Your task to perform on an android device: Add corsair k70 to the cart on ebay, then select checkout. Image 0: 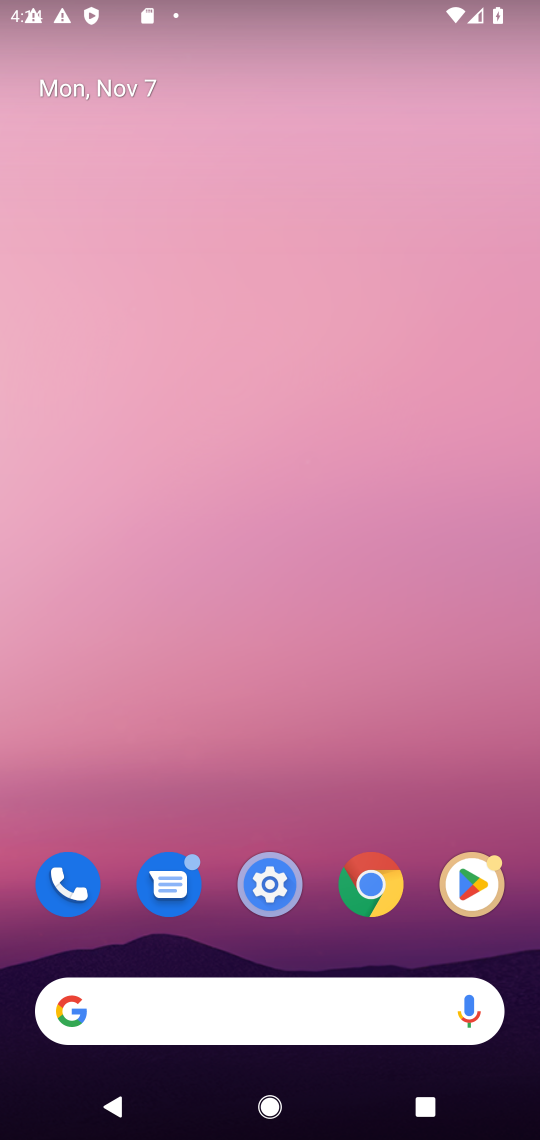
Step 0: drag from (325, 839) to (317, 142)
Your task to perform on an android device: Add corsair k70 to the cart on ebay, then select checkout. Image 1: 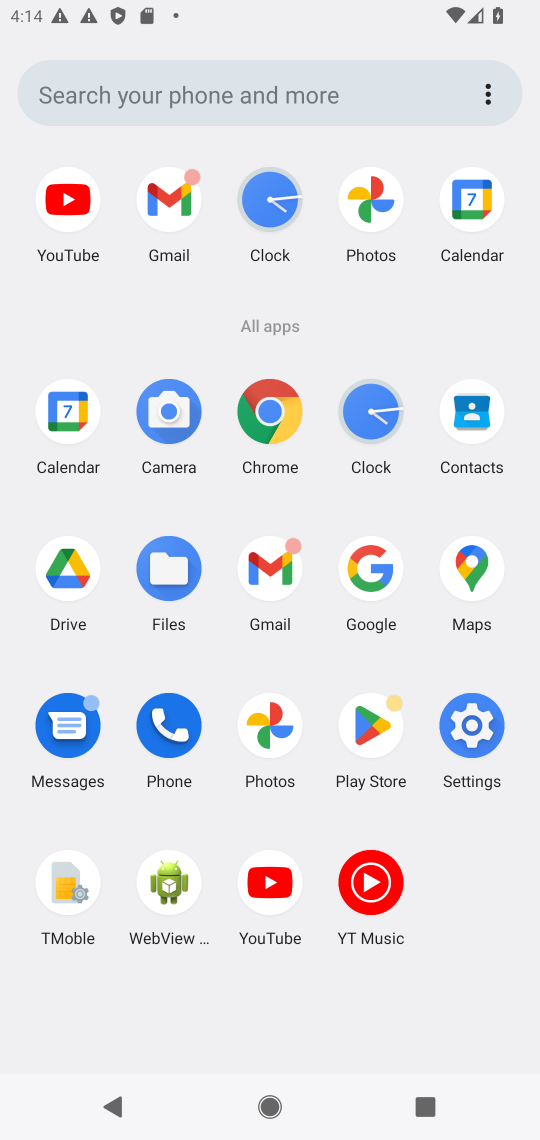
Step 1: click (275, 416)
Your task to perform on an android device: Add corsair k70 to the cart on ebay, then select checkout. Image 2: 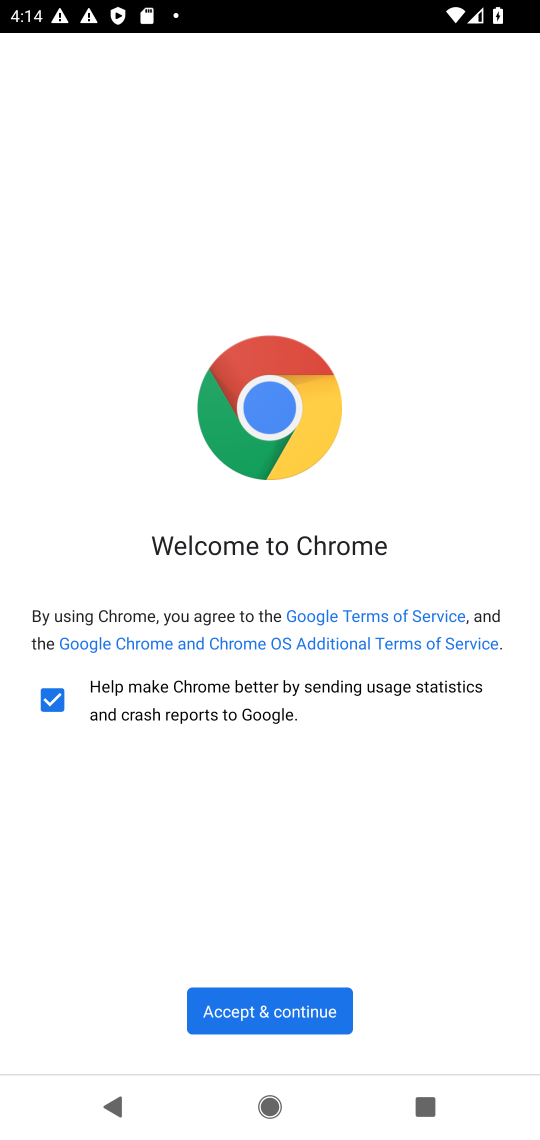
Step 2: click (310, 1009)
Your task to perform on an android device: Add corsair k70 to the cart on ebay, then select checkout. Image 3: 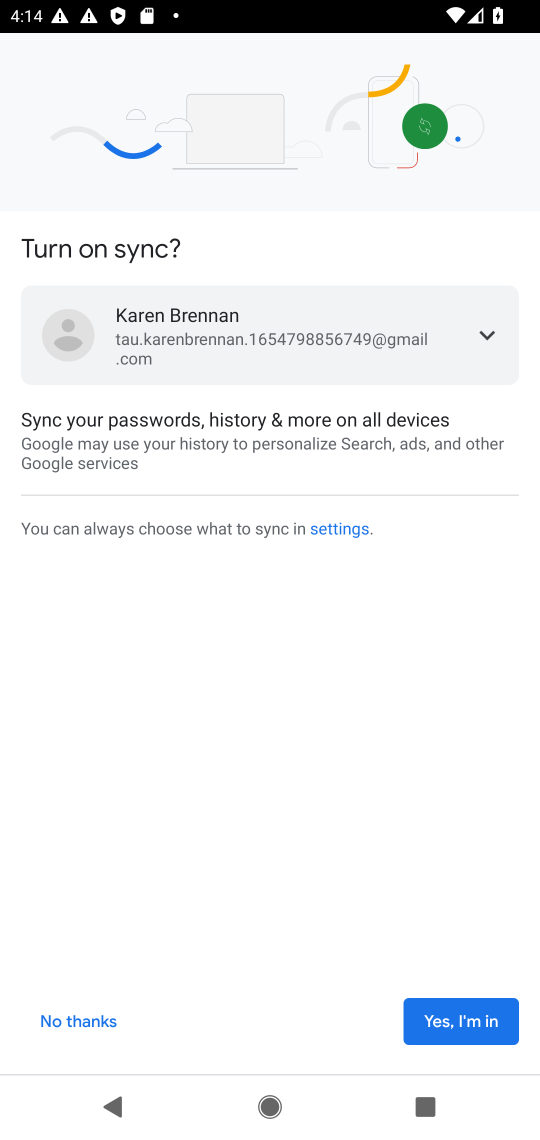
Step 3: click (475, 1027)
Your task to perform on an android device: Add corsair k70 to the cart on ebay, then select checkout. Image 4: 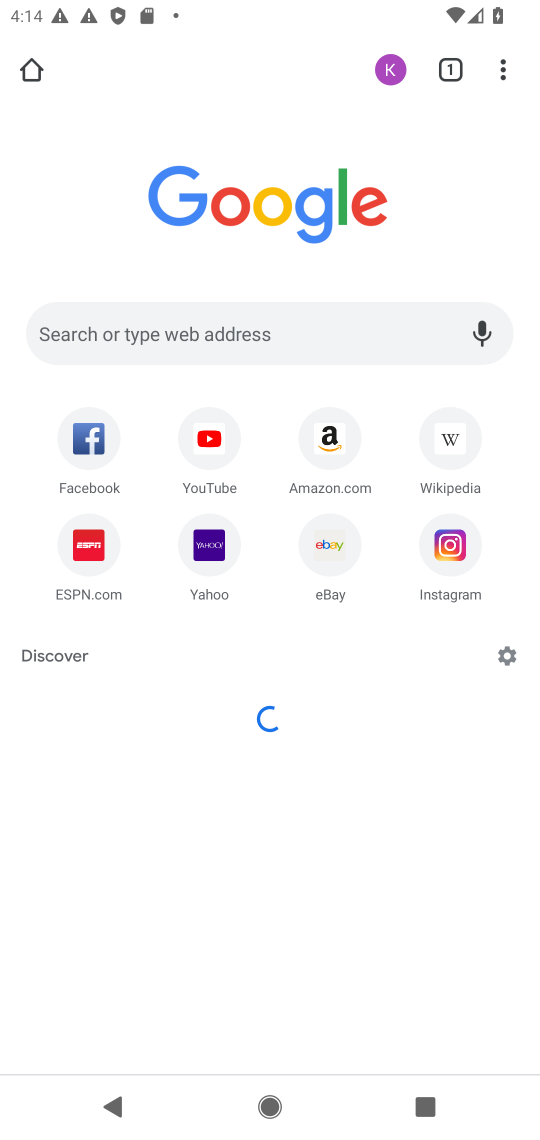
Step 4: click (324, 550)
Your task to perform on an android device: Add corsair k70 to the cart on ebay, then select checkout. Image 5: 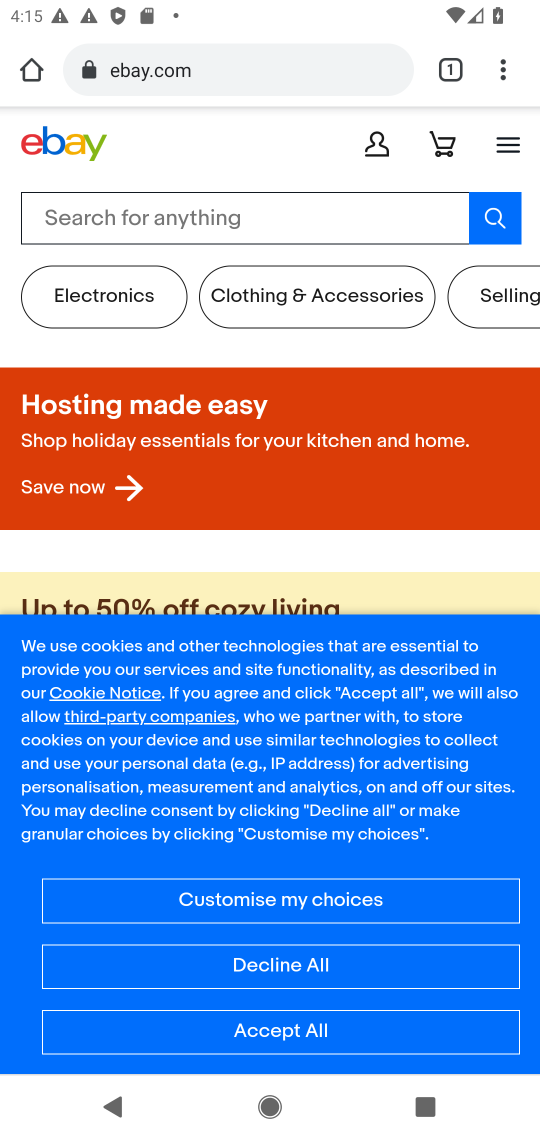
Step 5: click (334, 215)
Your task to perform on an android device: Add corsair k70 to the cart on ebay, then select checkout. Image 6: 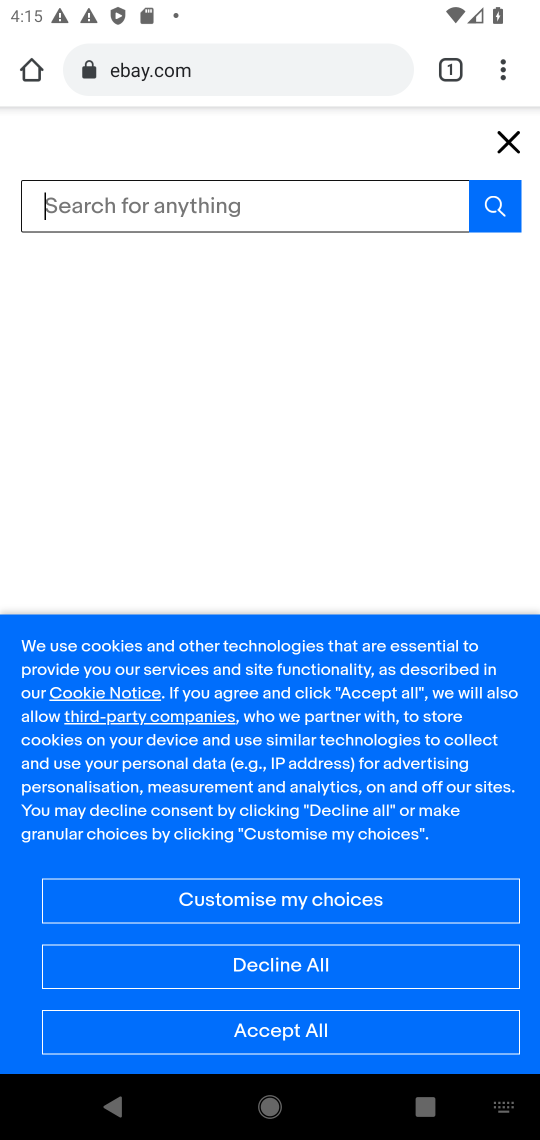
Step 6: press enter
Your task to perform on an android device: Add corsair k70 to the cart on ebay, then select checkout. Image 7: 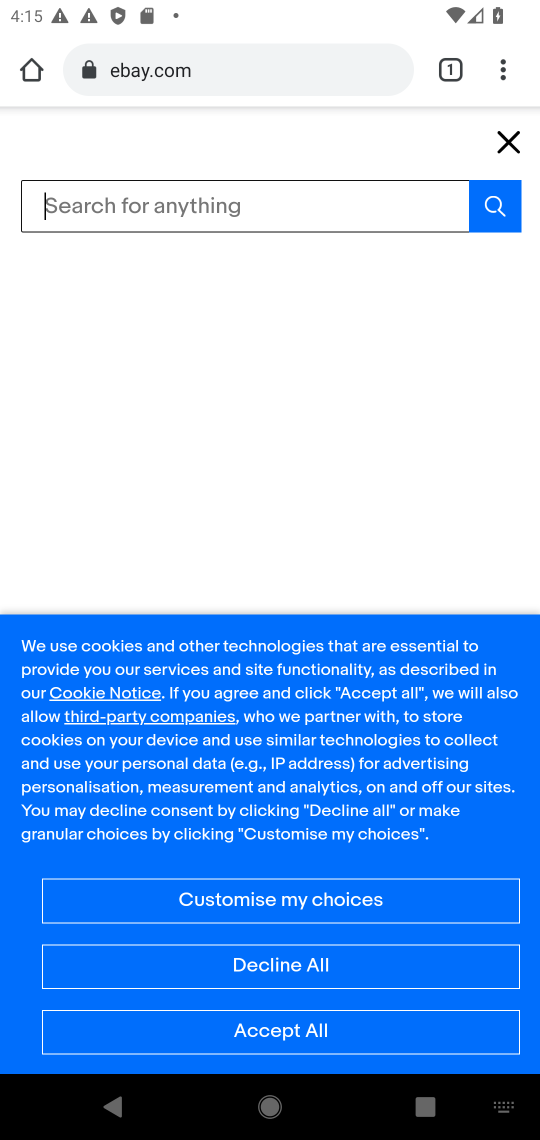
Step 7: type "corsair k70"
Your task to perform on an android device: Add corsair k70 to the cart on ebay, then select checkout. Image 8: 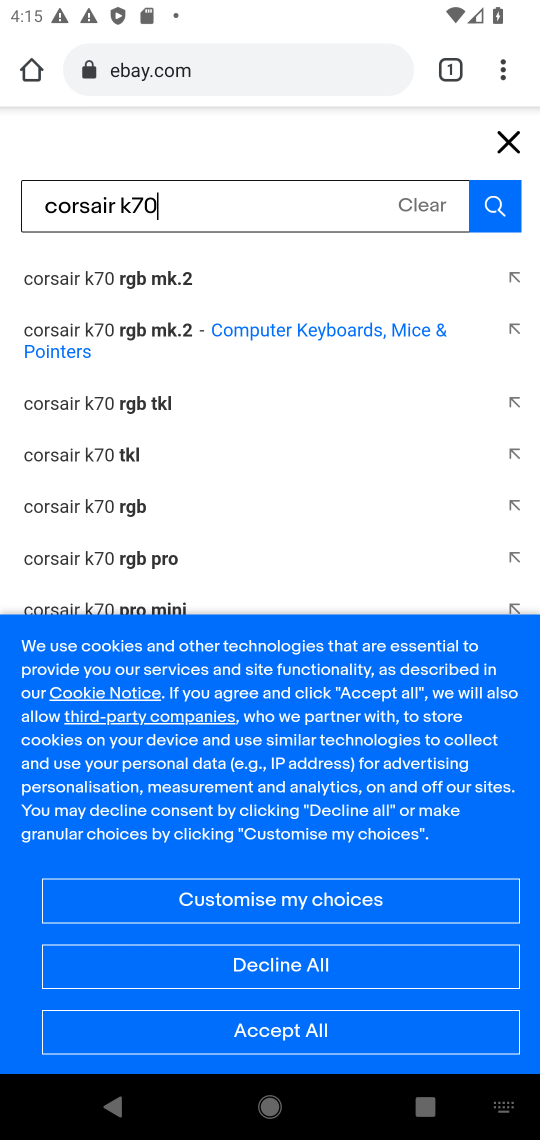
Step 8: click (487, 201)
Your task to perform on an android device: Add corsair k70 to the cart on ebay, then select checkout. Image 9: 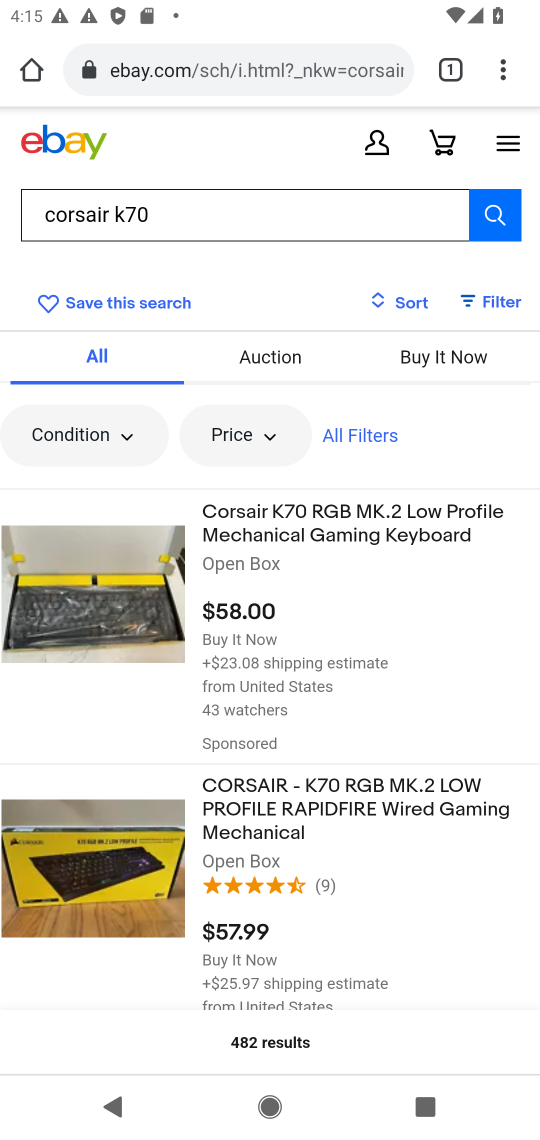
Step 9: click (341, 525)
Your task to perform on an android device: Add corsair k70 to the cart on ebay, then select checkout. Image 10: 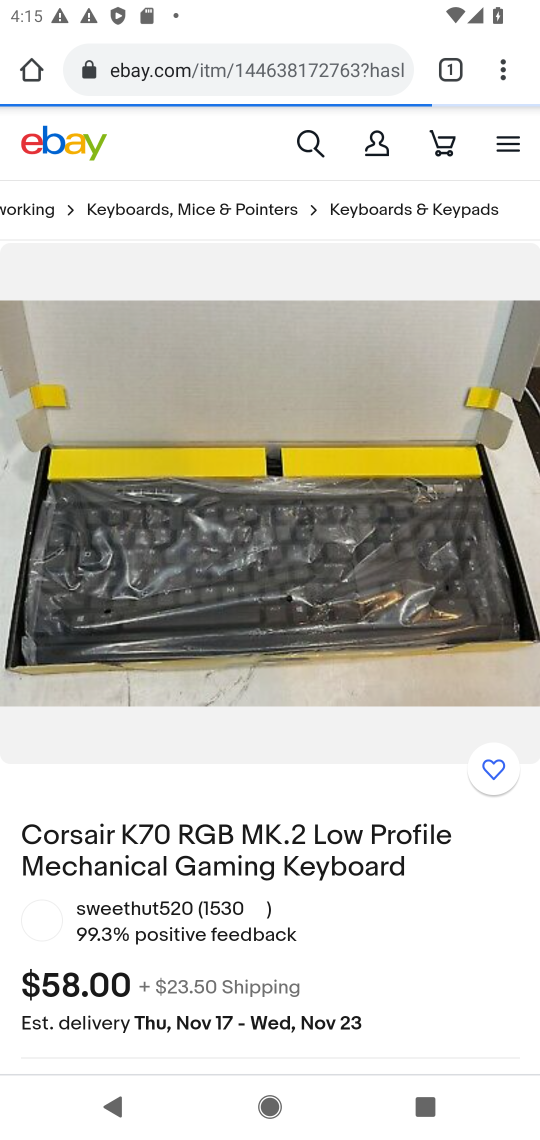
Step 10: drag from (317, 972) to (293, 325)
Your task to perform on an android device: Add corsair k70 to the cart on ebay, then select checkout. Image 11: 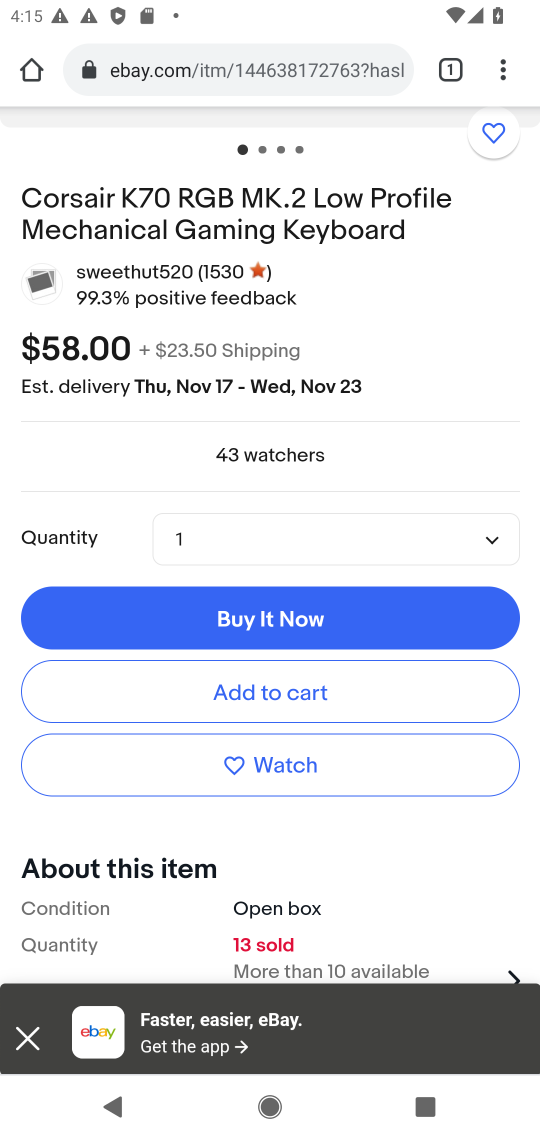
Step 11: click (355, 696)
Your task to perform on an android device: Add corsair k70 to the cart on ebay, then select checkout. Image 12: 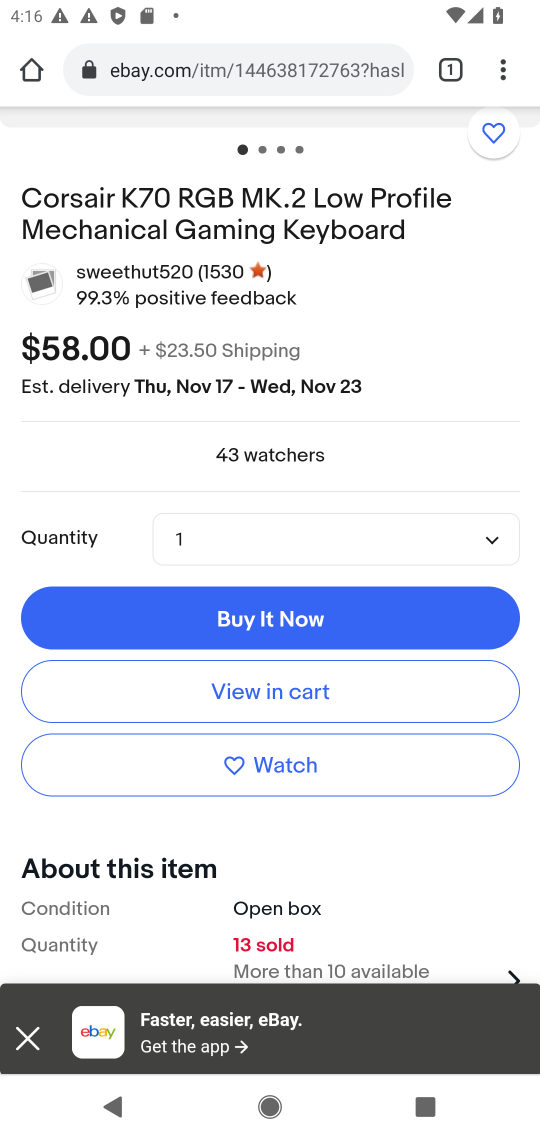
Step 12: click (407, 698)
Your task to perform on an android device: Add corsair k70 to the cart on ebay, then select checkout. Image 13: 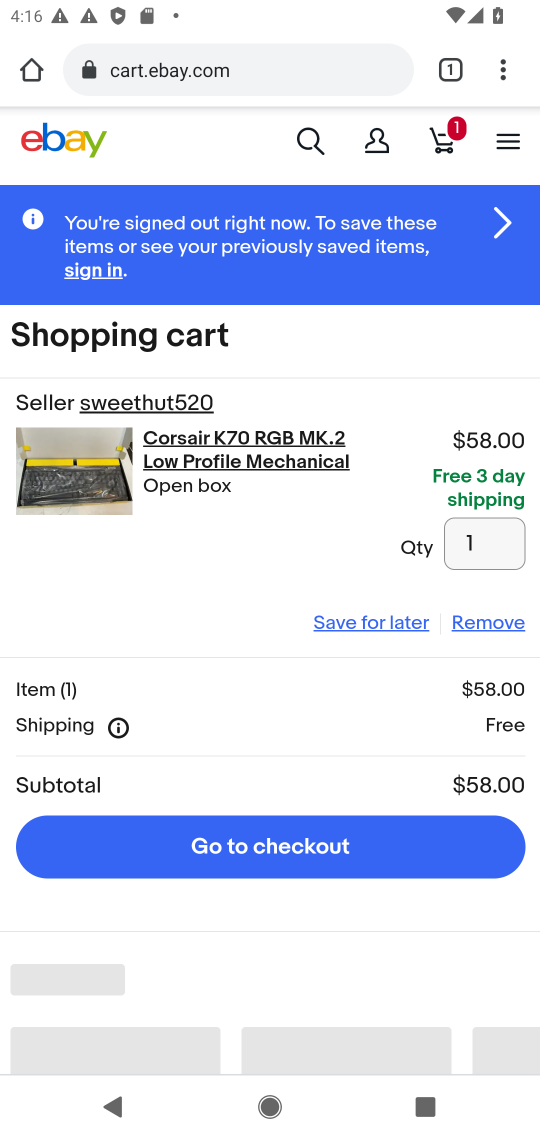
Step 13: click (356, 846)
Your task to perform on an android device: Add corsair k70 to the cart on ebay, then select checkout. Image 14: 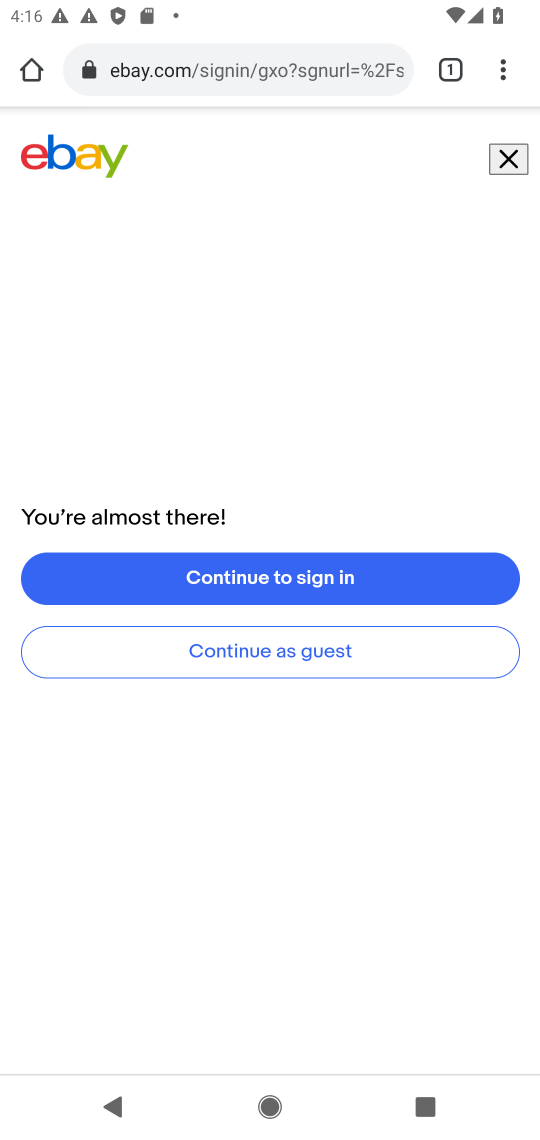
Step 14: task complete